Your task to perform on an android device: turn on bluetooth scan Image 0: 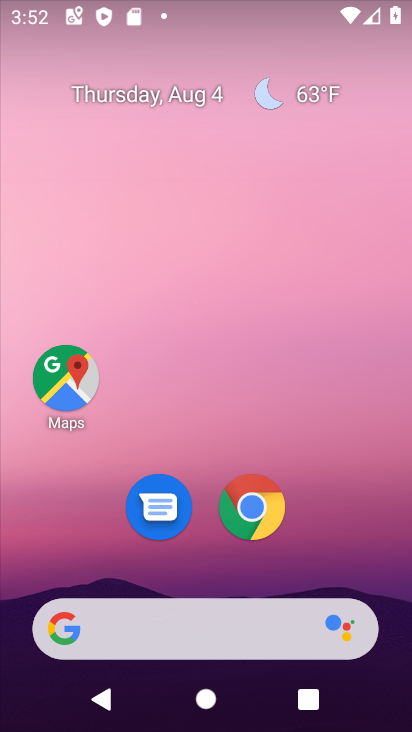
Step 0: drag from (26, 690) to (175, 9)
Your task to perform on an android device: turn on bluetooth scan Image 1: 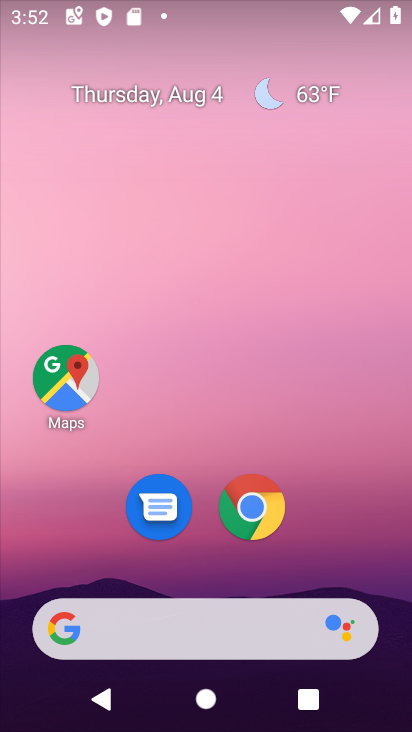
Step 1: drag from (69, 702) to (193, 89)
Your task to perform on an android device: turn on bluetooth scan Image 2: 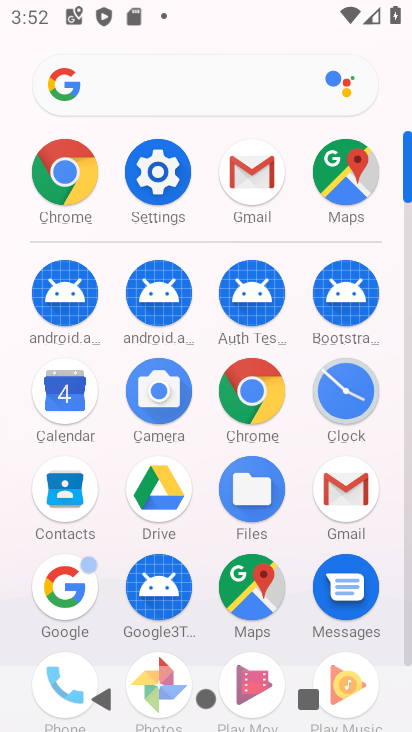
Step 2: drag from (185, 698) to (188, 424)
Your task to perform on an android device: turn on bluetooth scan Image 3: 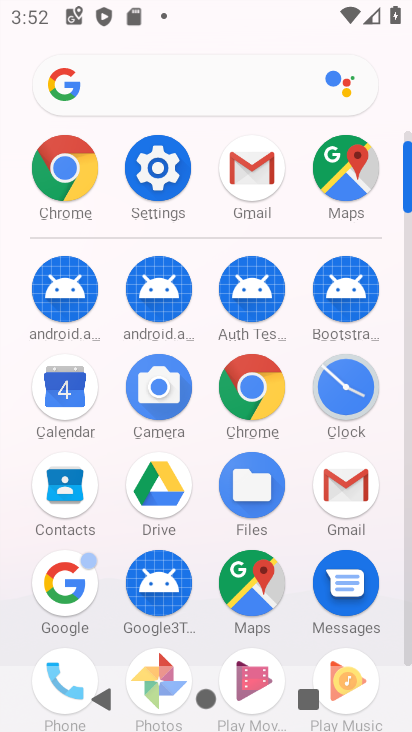
Step 3: drag from (377, 700) to (381, 347)
Your task to perform on an android device: turn on bluetooth scan Image 4: 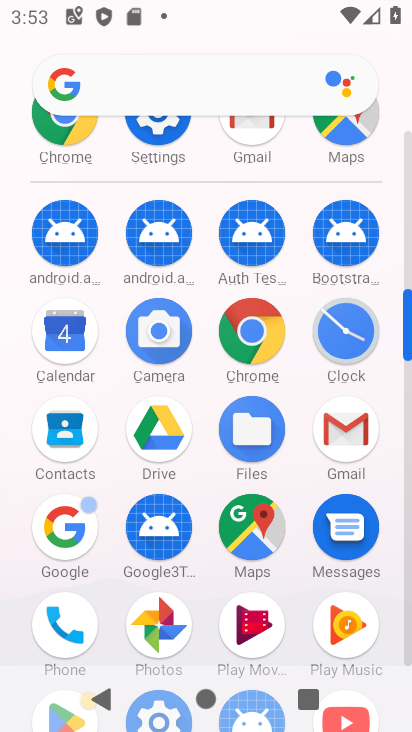
Step 4: drag from (379, 694) to (379, 313)
Your task to perform on an android device: turn on bluetooth scan Image 5: 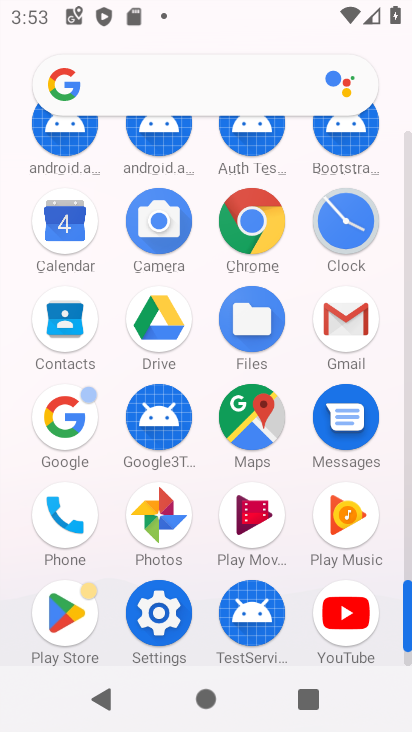
Step 5: click (166, 615)
Your task to perform on an android device: turn on bluetooth scan Image 6: 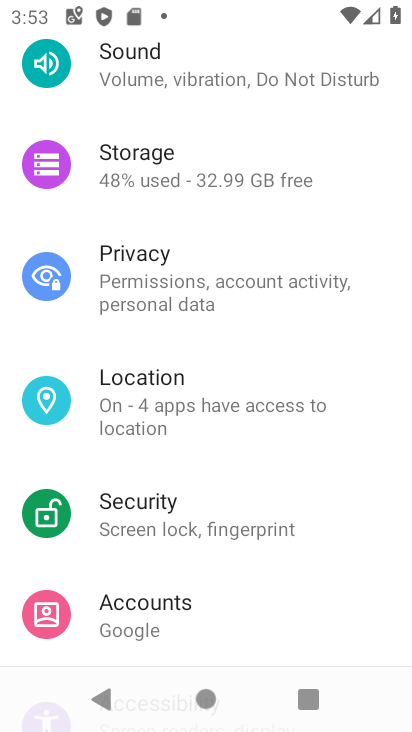
Step 6: drag from (264, 108) to (262, 360)
Your task to perform on an android device: turn on bluetooth scan Image 7: 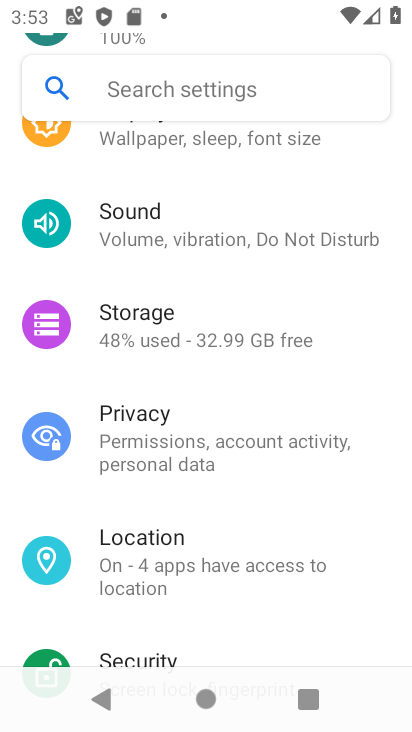
Step 7: drag from (220, 143) to (219, 460)
Your task to perform on an android device: turn on bluetooth scan Image 8: 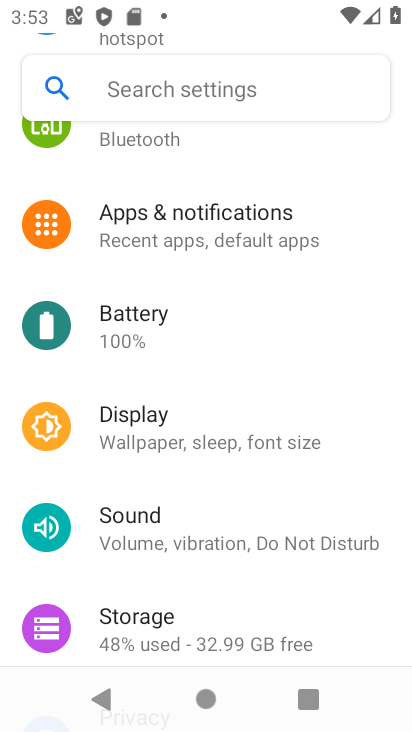
Step 8: drag from (192, 161) to (232, 500)
Your task to perform on an android device: turn on bluetooth scan Image 9: 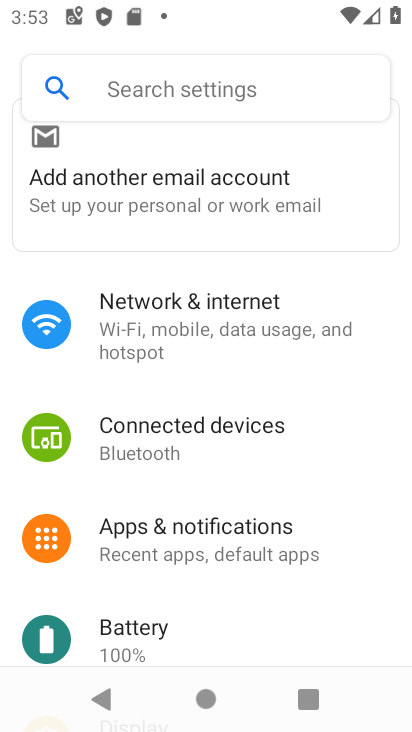
Step 9: click (161, 464)
Your task to perform on an android device: turn on bluetooth scan Image 10: 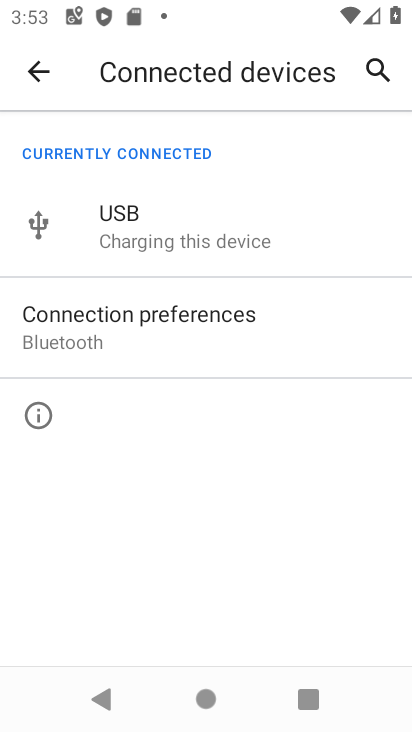
Step 10: click (155, 329)
Your task to perform on an android device: turn on bluetooth scan Image 11: 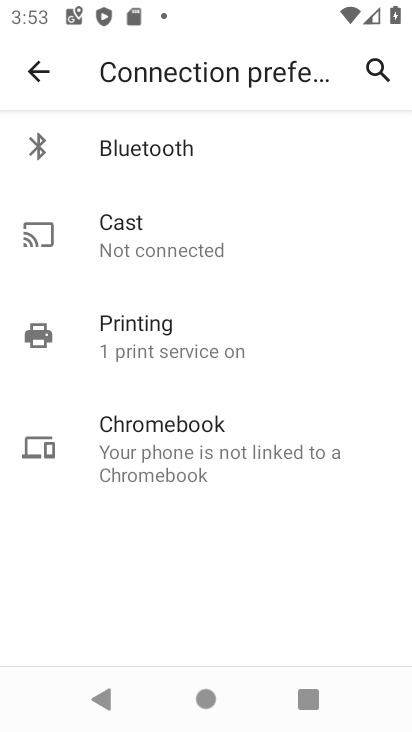
Step 11: click (115, 171)
Your task to perform on an android device: turn on bluetooth scan Image 12: 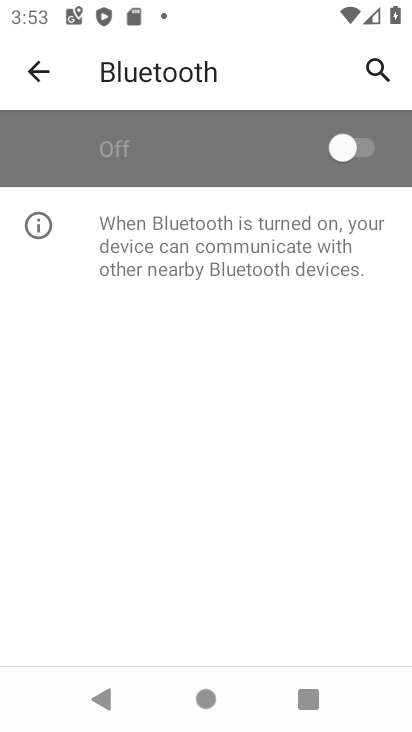
Step 12: task complete